Your task to perform on an android device: check storage Image 0: 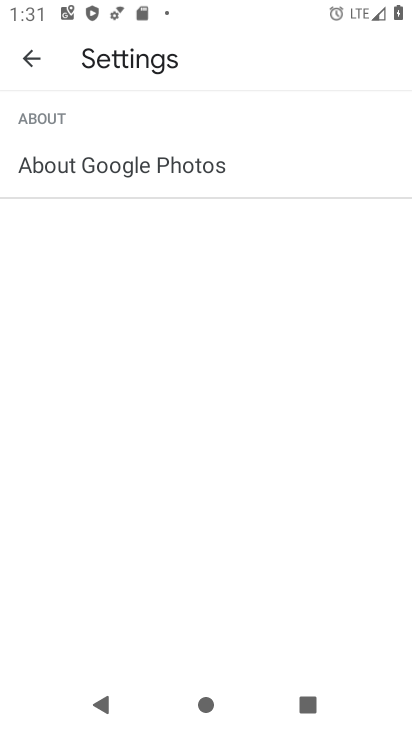
Step 0: press home button
Your task to perform on an android device: check storage Image 1: 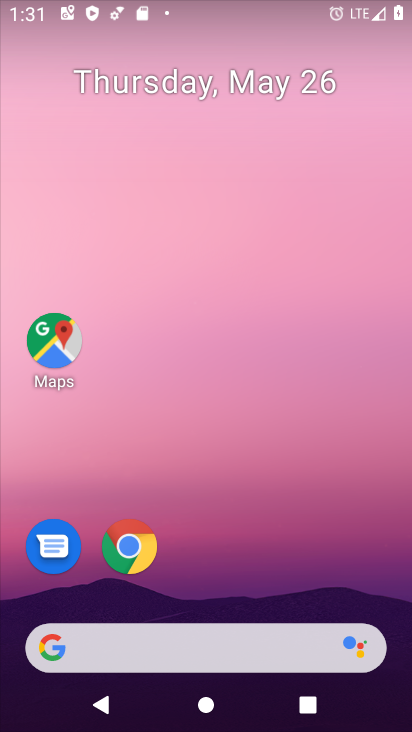
Step 1: drag from (371, 553) to (238, 33)
Your task to perform on an android device: check storage Image 2: 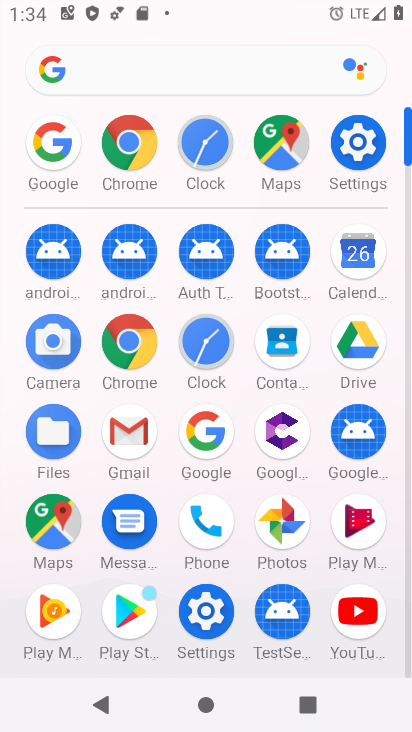
Step 2: click (351, 118)
Your task to perform on an android device: check storage Image 3: 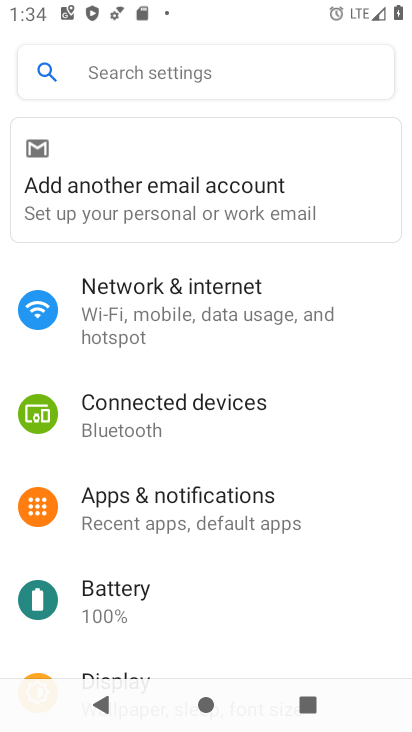
Step 3: drag from (216, 560) to (179, 188)
Your task to perform on an android device: check storage Image 4: 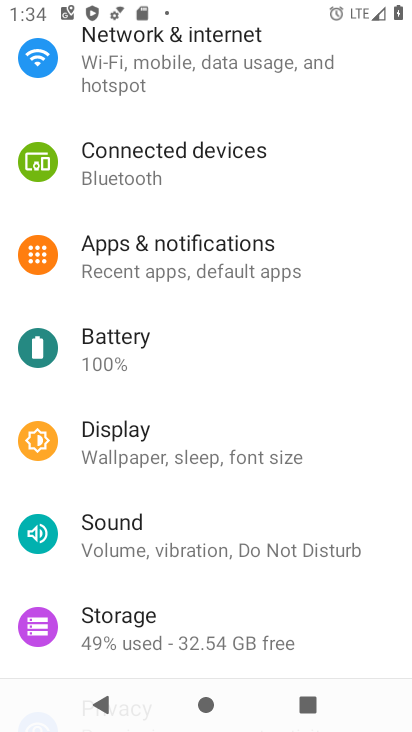
Step 4: click (167, 615)
Your task to perform on an android device: check storage Image 5: 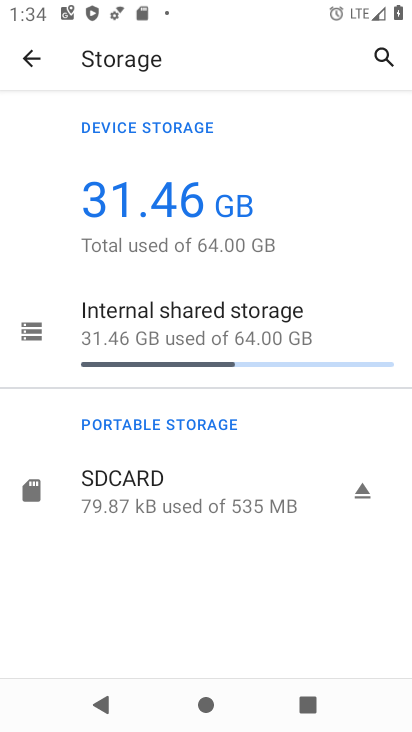
Step 5: click (256, 318)
Your task to perform on an android device: check storage Image 6: 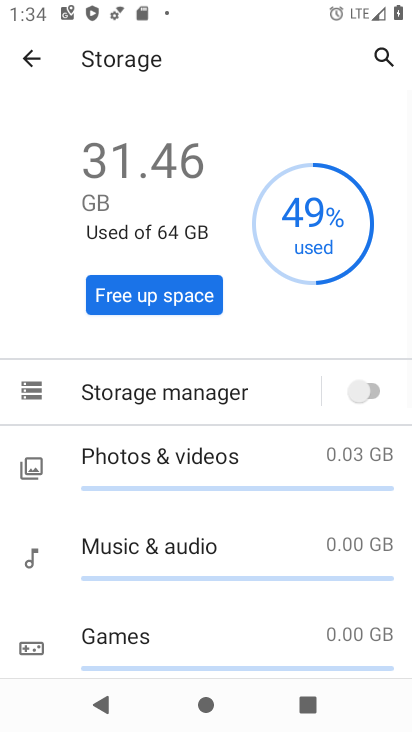
Step 6: task complete